Your task to perform on an android device: turn on airplane mode Image 0: 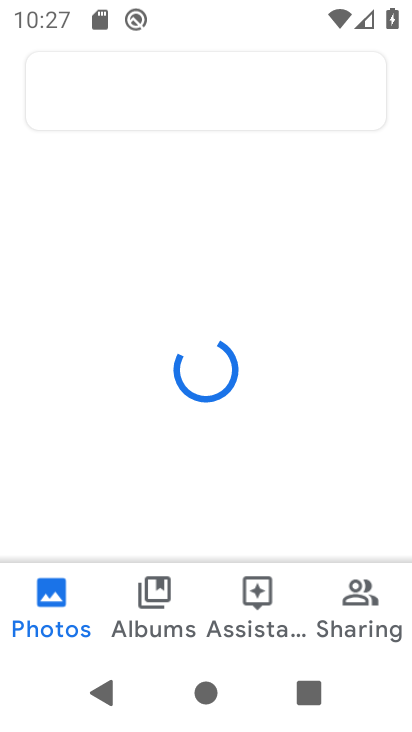
Step 0: press home button
Your task to perform on an android device: turn on airplane mode Image 1: 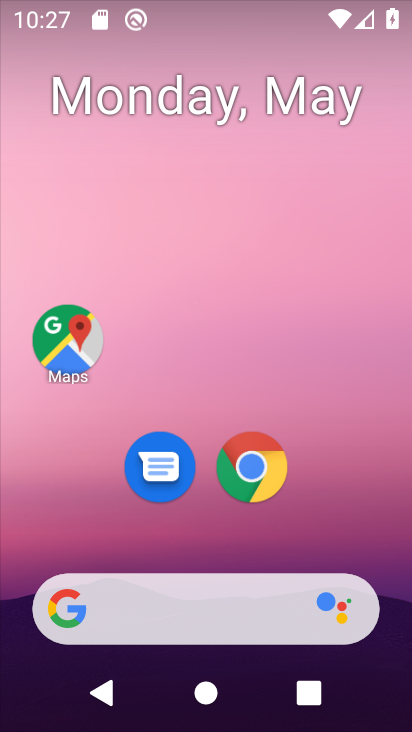
Step 1: drag from (177, 543) to (130, 21)
Your task to perform on an android device: turn on airplane mode Image 2: 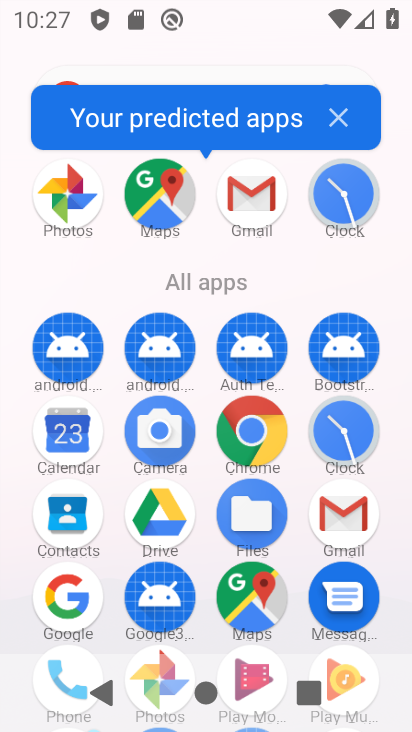
Step 2: drag from (290, 555) to (272, 25)
Your task to perform on an android device: turn on airplane mode Image 3: 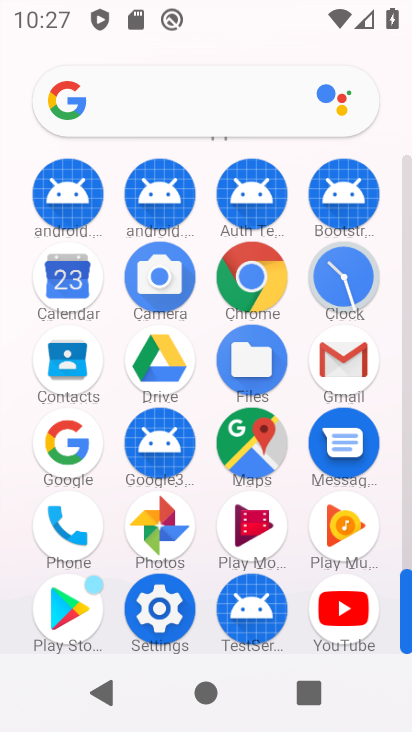
Step 3: click (143, 599)
Your task to perform on an android device: turn on airplane mode Image 4: 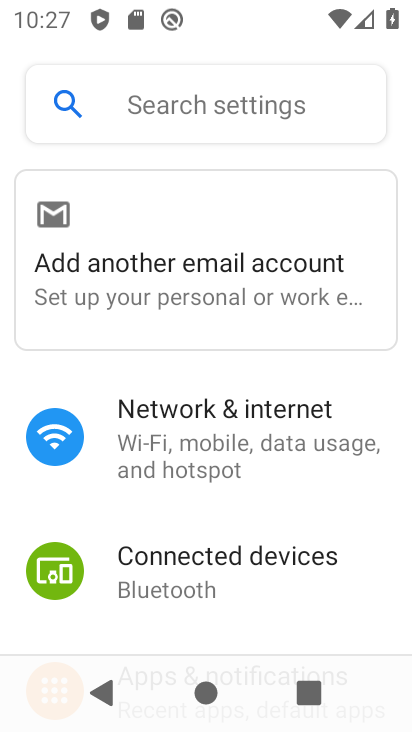
Step 4: click (172, 427)
Your task to perform on an android device: turn on airplane mode Image 5: 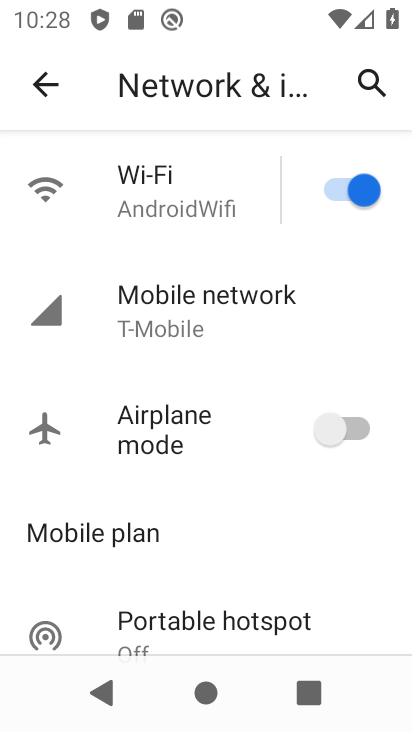
Step 5: click (364, 428)
Your task to perform on an android device: turn on airplane mode Image 6: 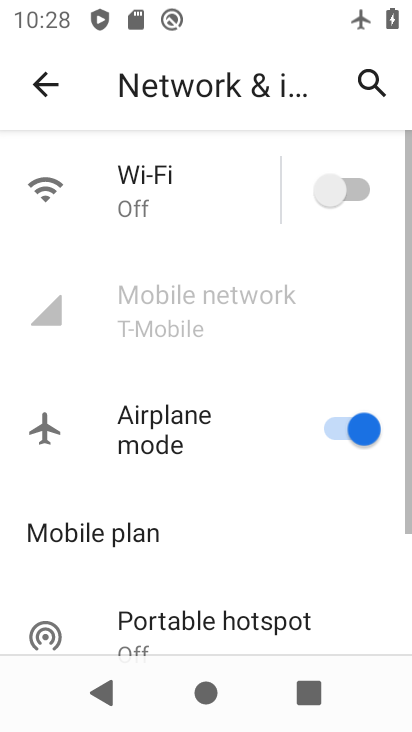
Step 6: task complete